Your task to perform on an android device: see sites visited before in the chrome app Image 0: 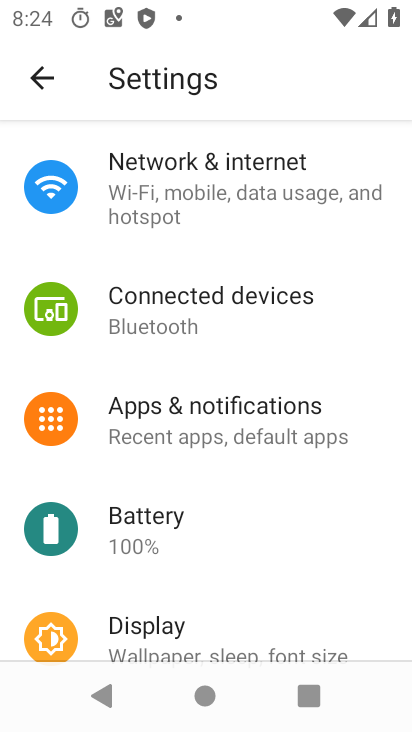
Step 0: press home button
Your task to perform on an android device: see sites visited before in the chrome app Image 1: 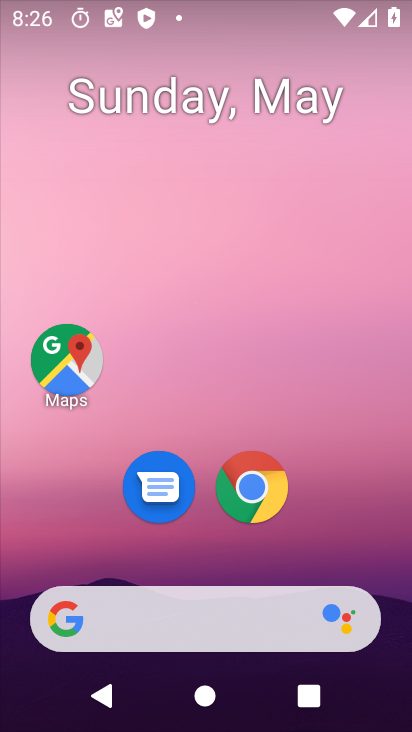
Step 1: click (245, 479)
Your task to perform on an android device: see sites visited before in the chrome app Image 2: 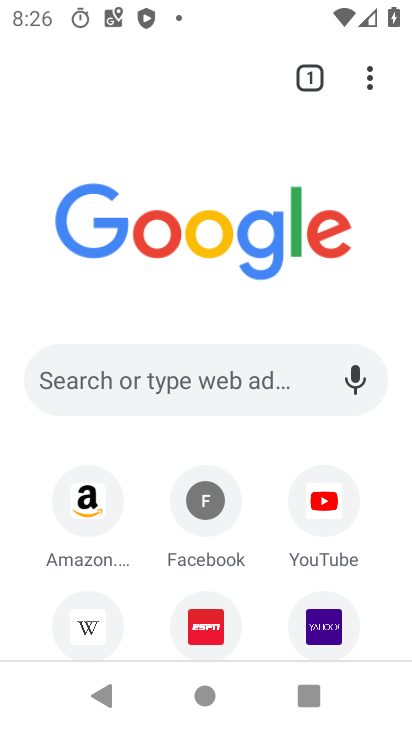
Step 2: click (375, 80)
Your task to perform on an android device: see sites visited before in the chrome app Image 3: 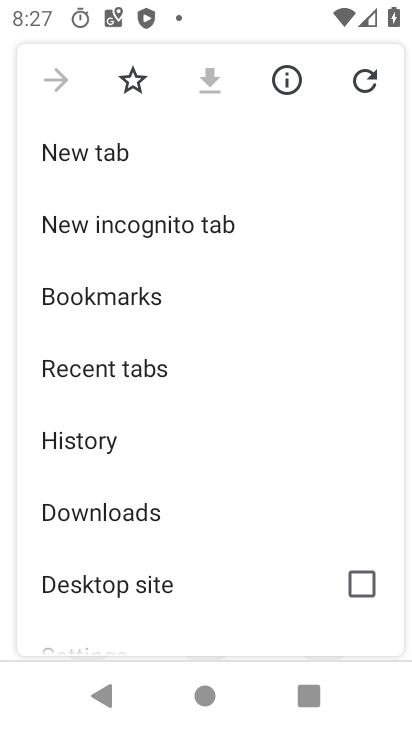
Step 3: click (96, 441)
Your task to perform on an android device: see sites visited before in the chrome app Image 4: 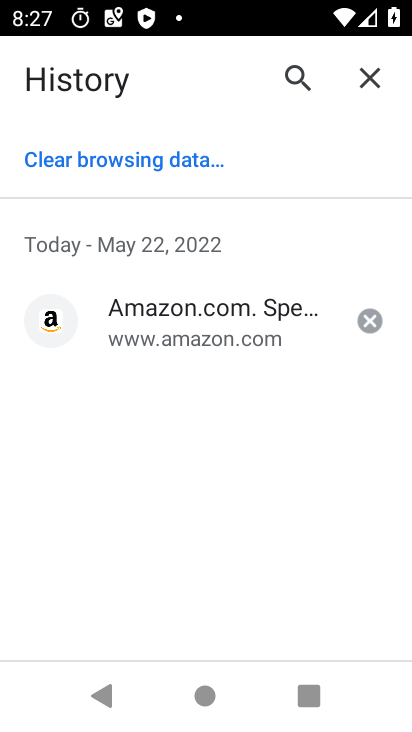
Step 4: task complete